Your task to perform on an android device: uninstall "Duolingo: language lessons" Image 0: 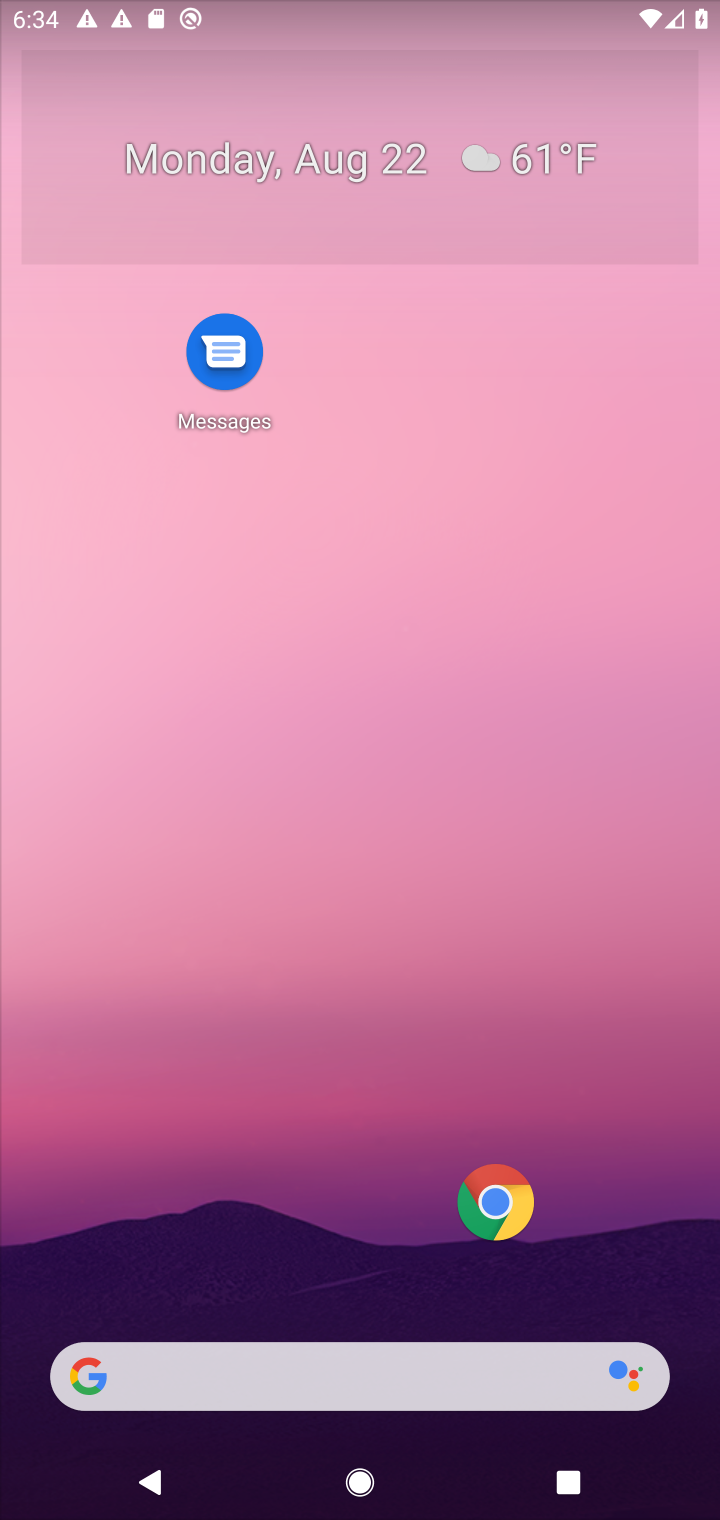
Step 0: drag from (312, 1295) to (377, 435)
Your task to perform on an android device: uninstall "Duolingo: language lessons" Image 1: 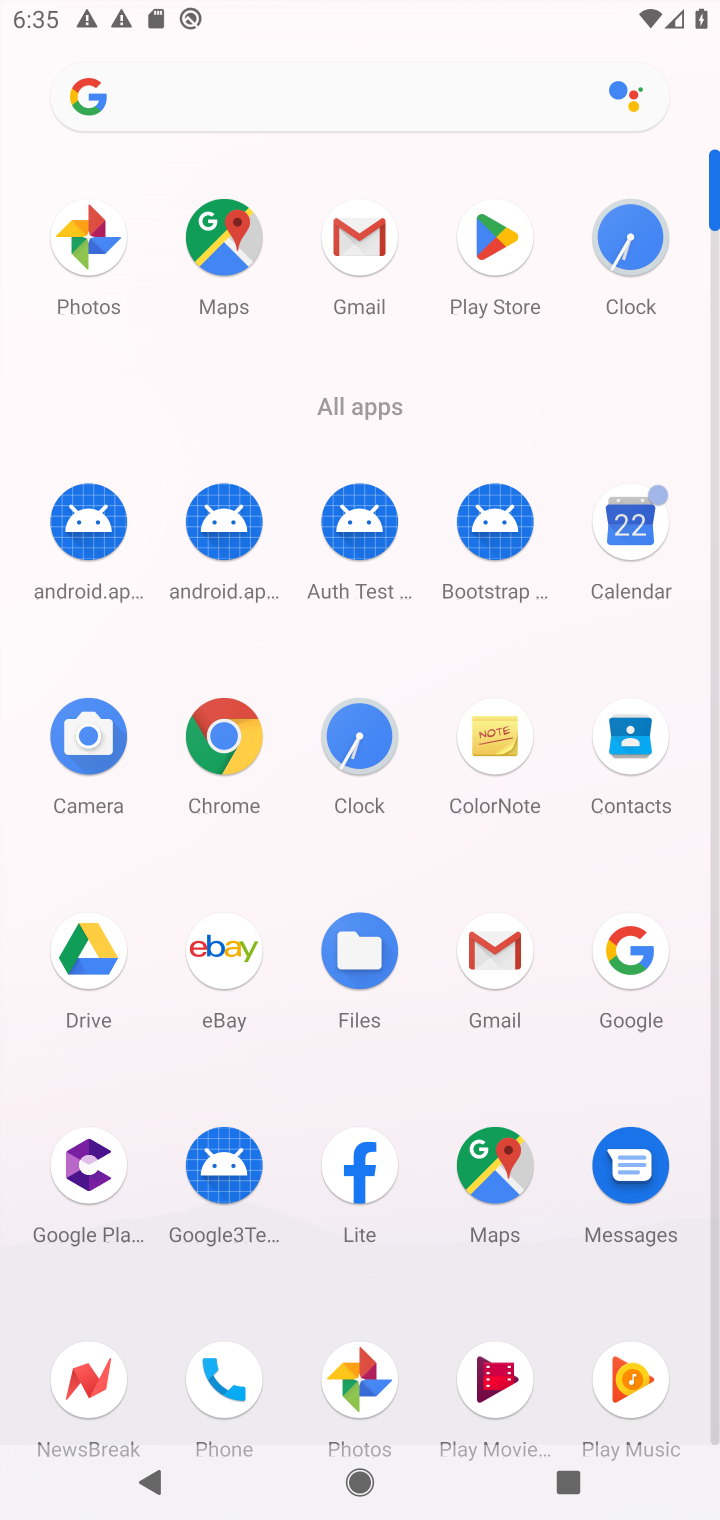
Step 1: click (476, 230)
Your task to perform on an android device: uninstall "Duolingo: language lessons" Image 2: 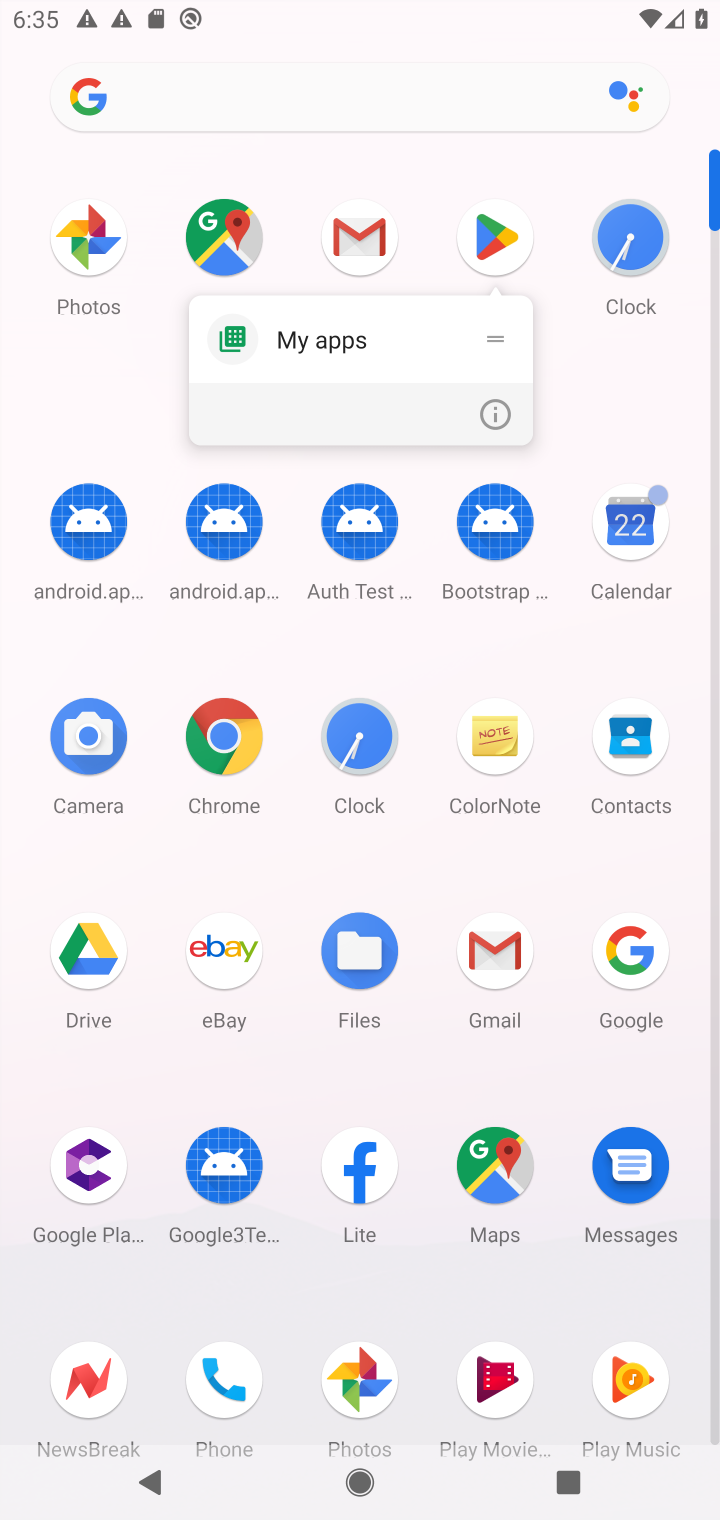
Step 2: click (491, 265)
Your task to perform on an android device: uninstall "Duolingo: language lessons" Image 3: 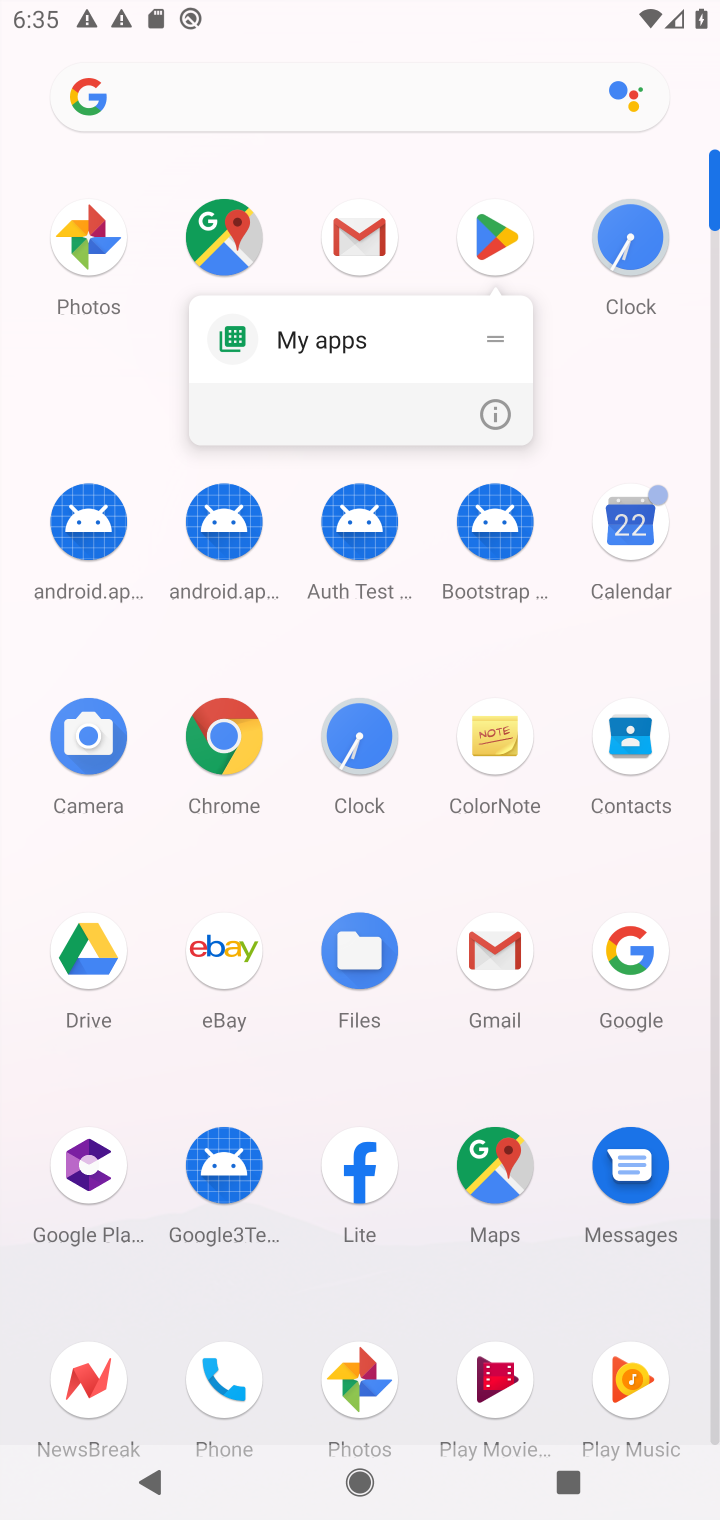
Step 3: click (489, 245)
Your task to perform on an android device: uninstall "Duolingo: language lessons" Image 4: 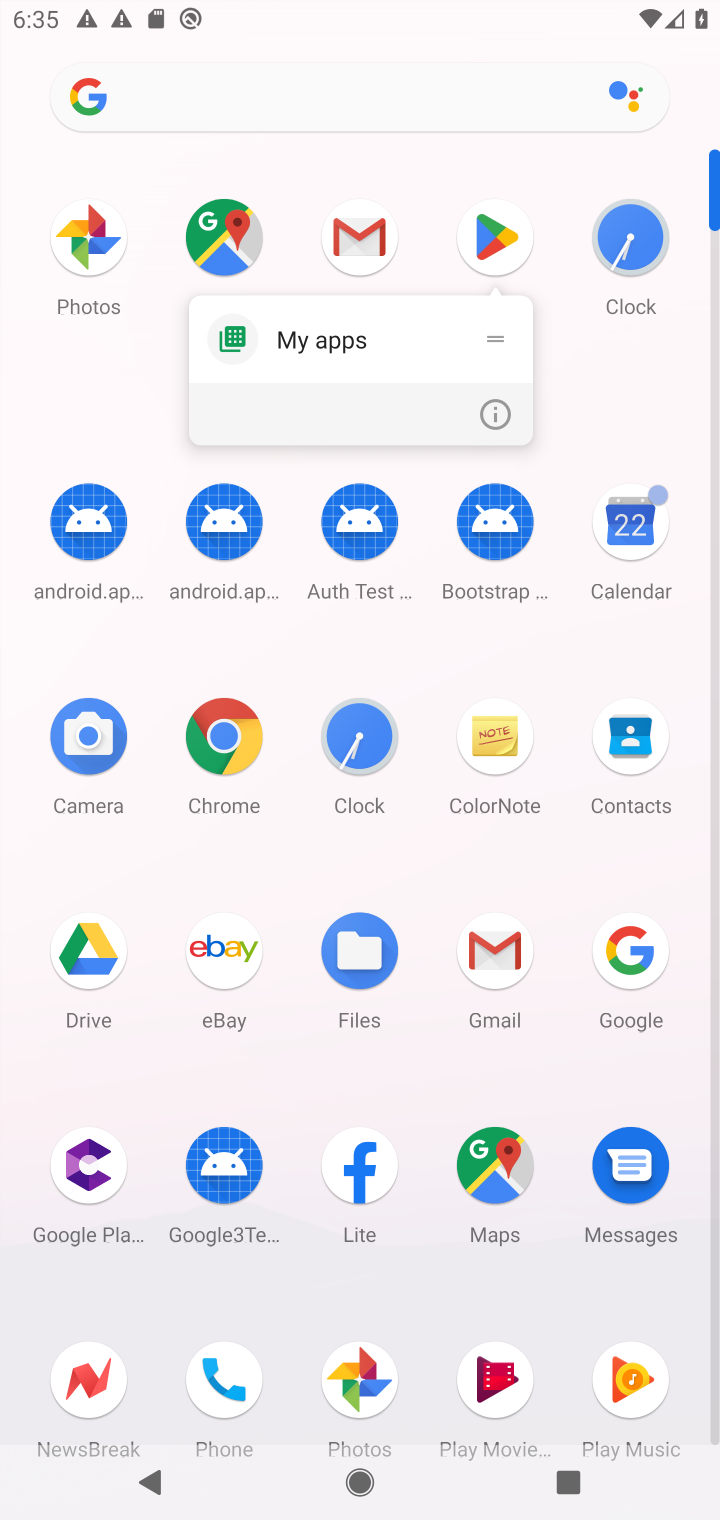
Step 4: click (499, 242)
Your task to perform on an android device: uninstall "Duolingo: language lessons" Image 5: 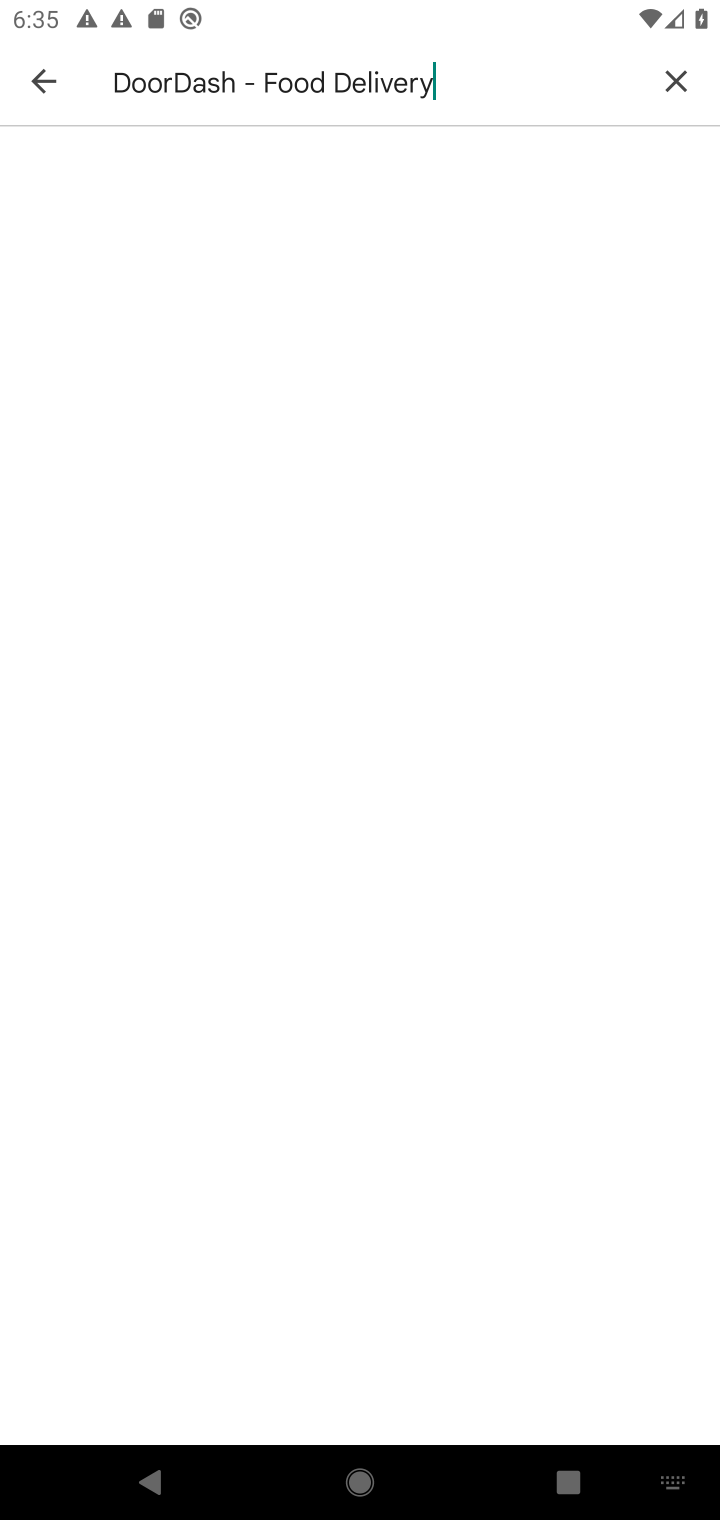
Step 5: click (667, 78)
Your task to perform on an android device: uninstall "Duolingo: language lessons" Image 6: 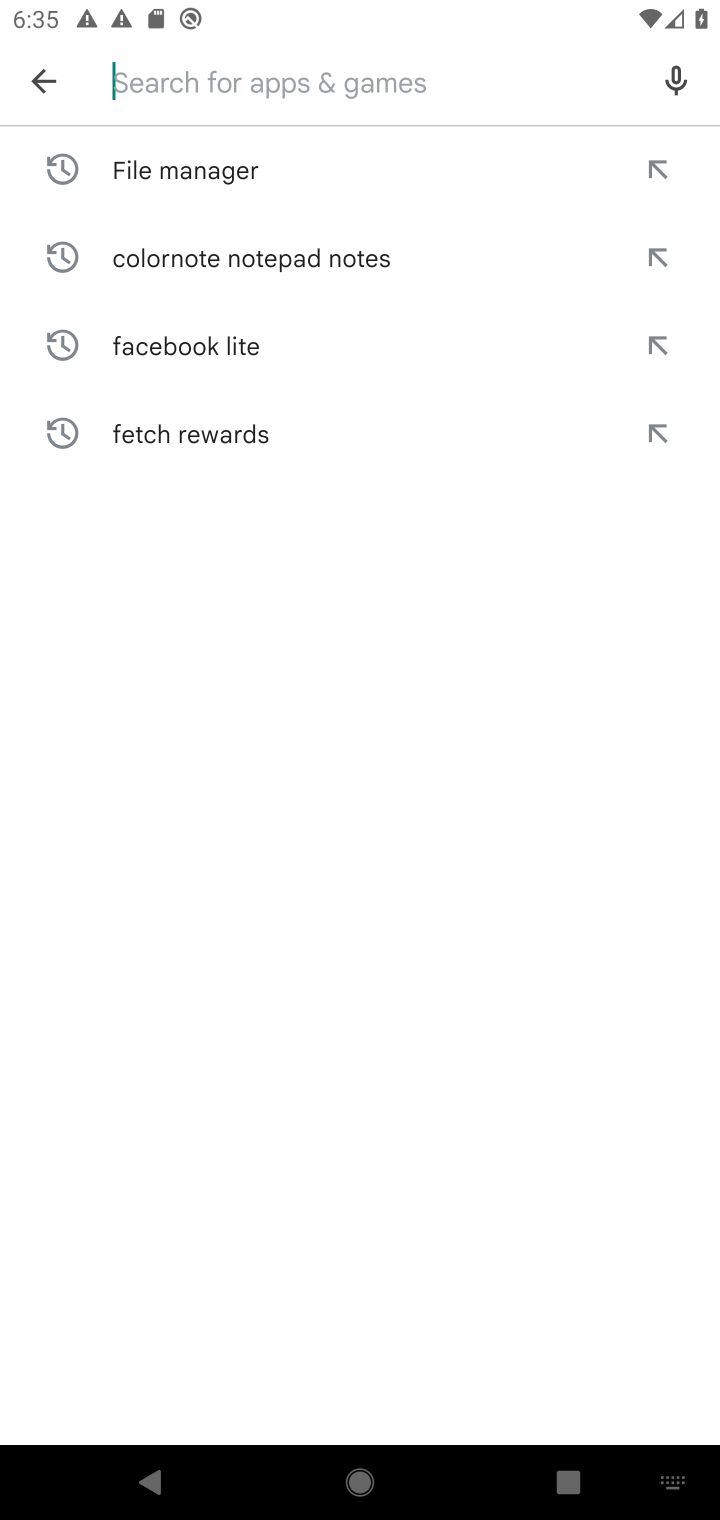
Step 6: type "Duolingo: language lessons"
Your task to perform on an android device: uninstall "Duolingo: language lessons" Image 7: 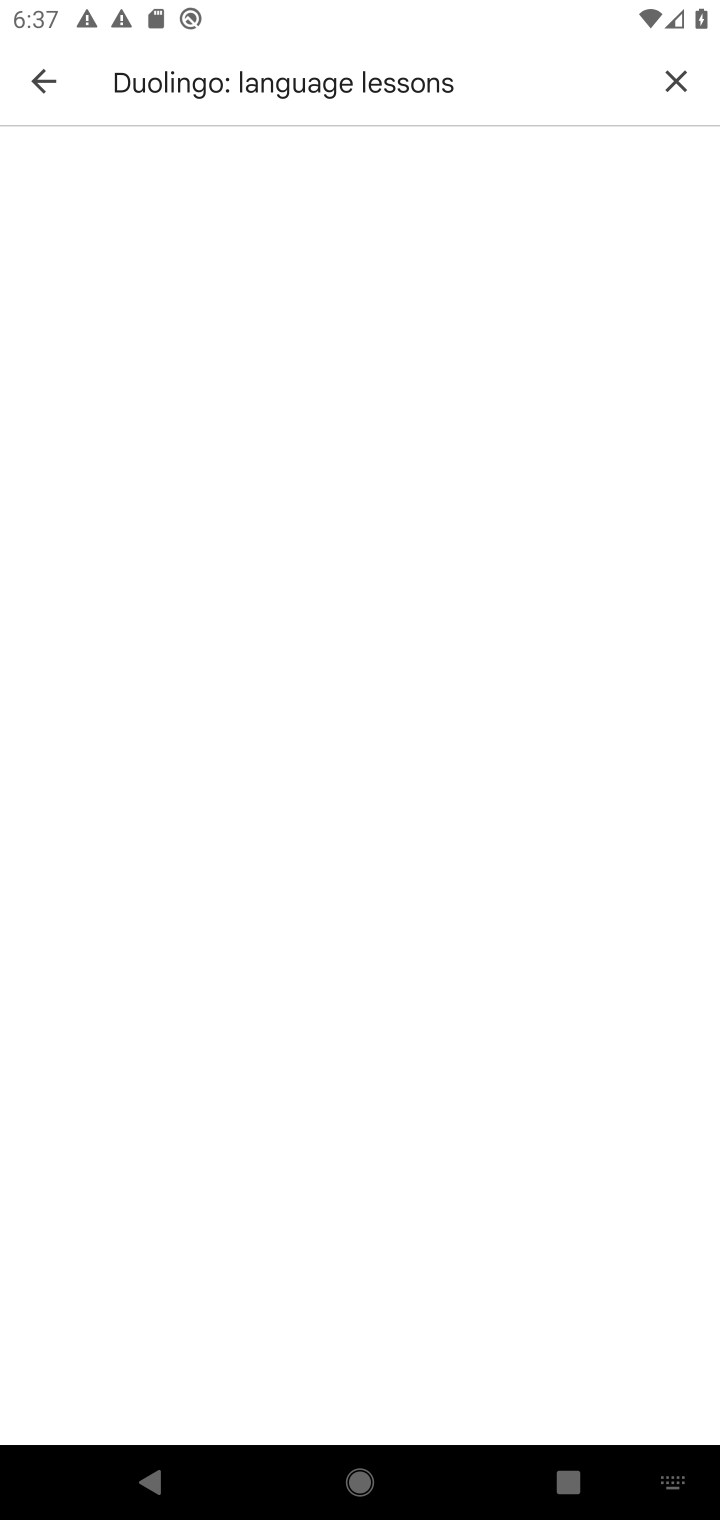
Step 7: task complete